Your task to perform on an android device: Go to calendar. Show me events next week Image 0: 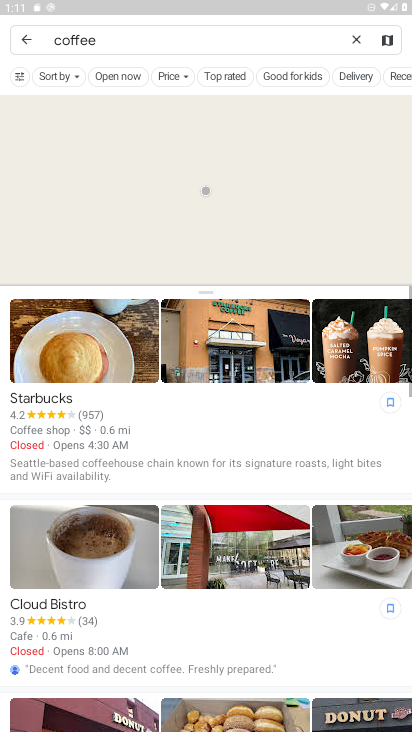
Step 0: press home button
Your task to perform on an android device: Go to calendar. Show me events next week Image 1: 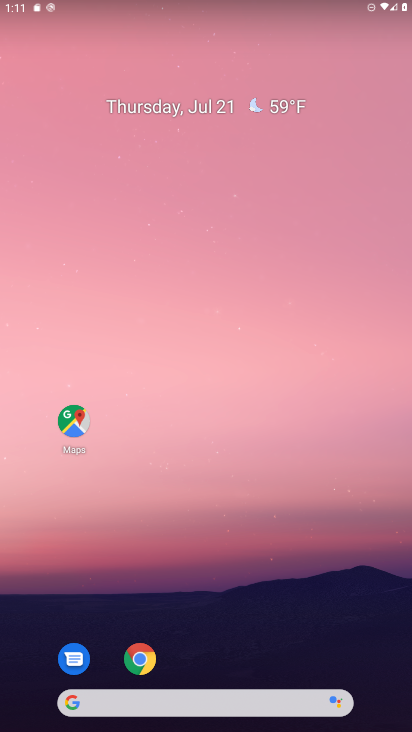
Step 1: drag from (32, 569) to (210, 116)
Your task to perform on an android device: Go to calendar. Show me events next week Image 2: 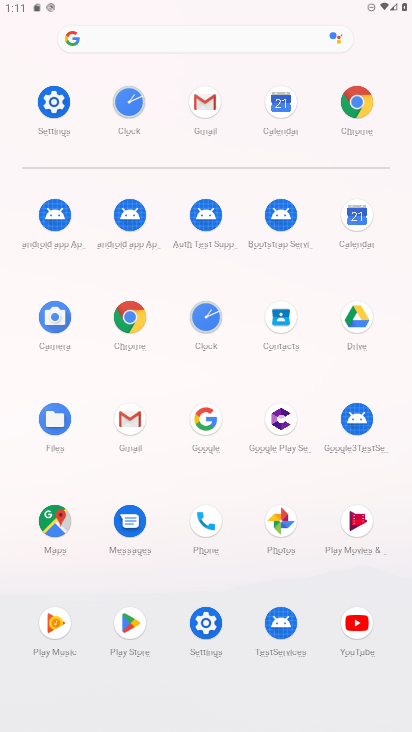
Step 2: click (354, 233)
Your task to perform on an android device: Go to calendar. Show me events next week Image 3: 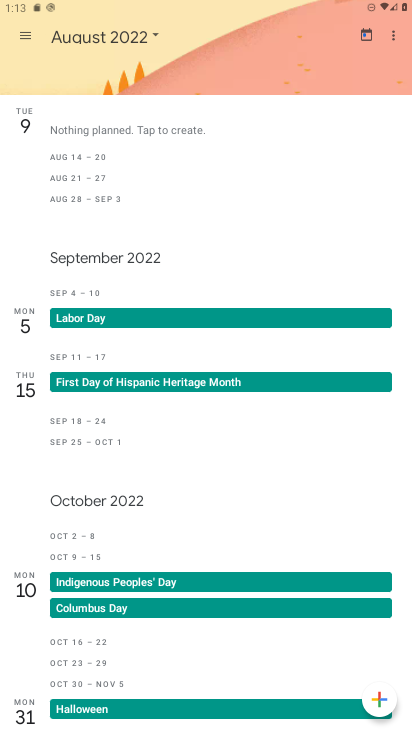
Step 3: click (107, 32)
Your task to perform on an android device: Go to calendar. Show me events next week Image 4: 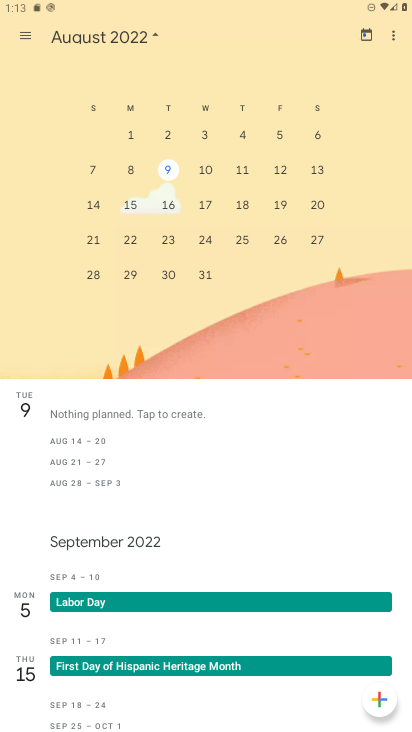
Step 4: drag from (13, 240) to (402, 165)
Your task to perform on an android device: Go to calendar. Show me events next week Image 5: 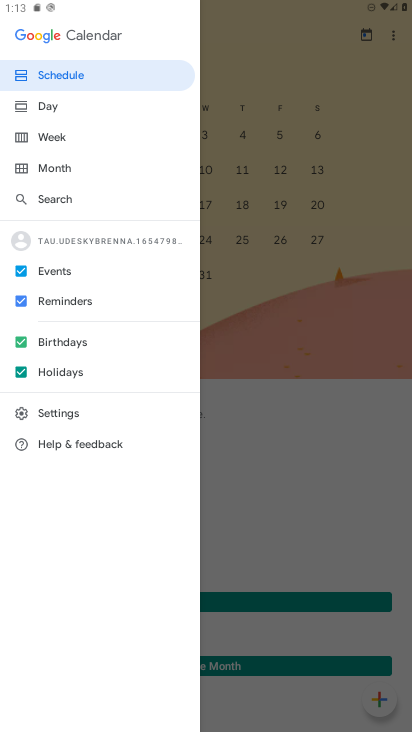
Step 5: press back button
Your task to perform on an android device: Go to calendar. Show me events next week Image 6: 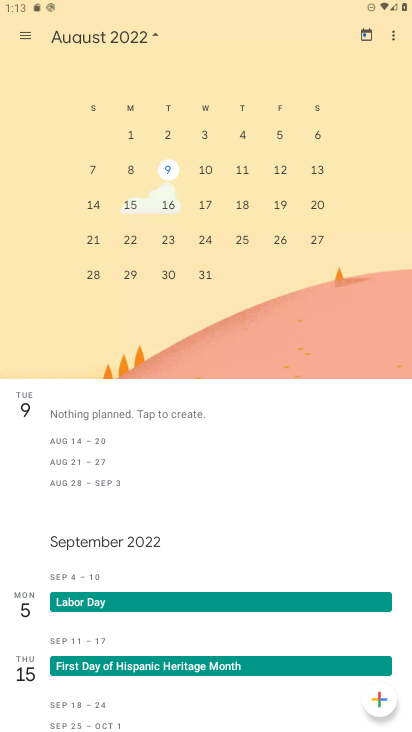
Step 6: drag from (50, 204) to (384, 281)
Your task to perform on an android device: Go to calendar. Show me events next week Image 7: 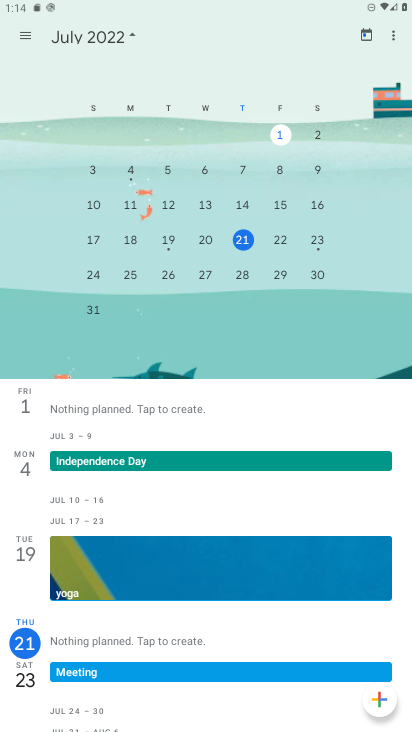
Step 7: click (273, 246)
Your task to perform on an android device: Go to calendar. Show me events next week Image 8: 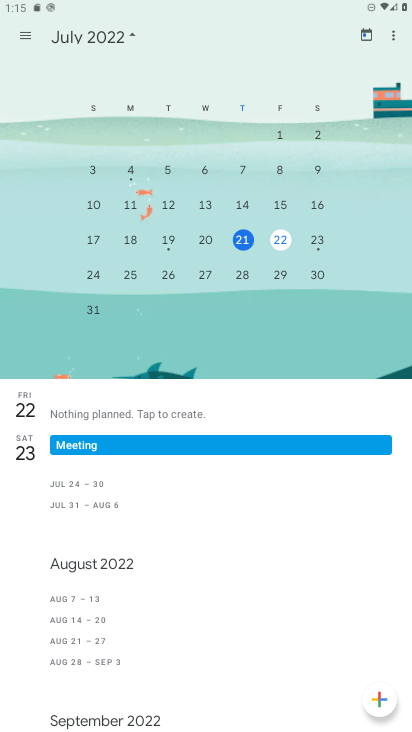
Step 8: task complete